Your task to perform on an android device: toggle notifications settings in the gmail app Image 0: 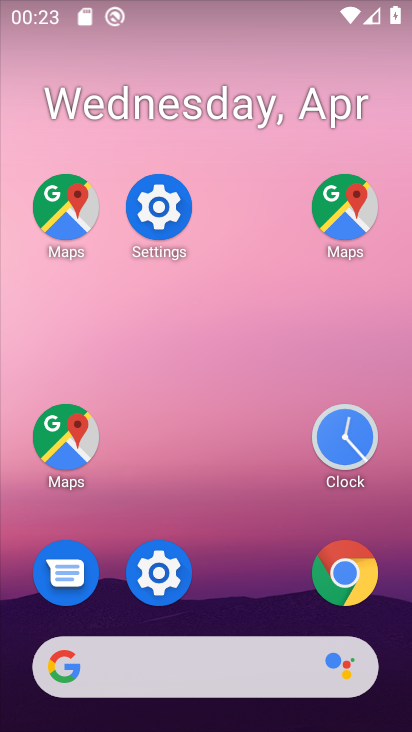
Step 0: drag from (236, 481) to (121, 74)
Your task to perform on an android device: toggle notifications settings in the gmail app Image 1: 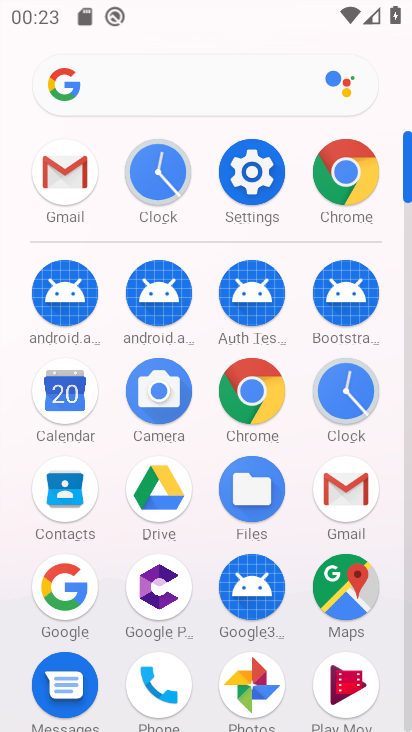
Step 1: click (332, 486)
Your task to perform on an android device: toggle notifications settings in the gmail app Image 2: 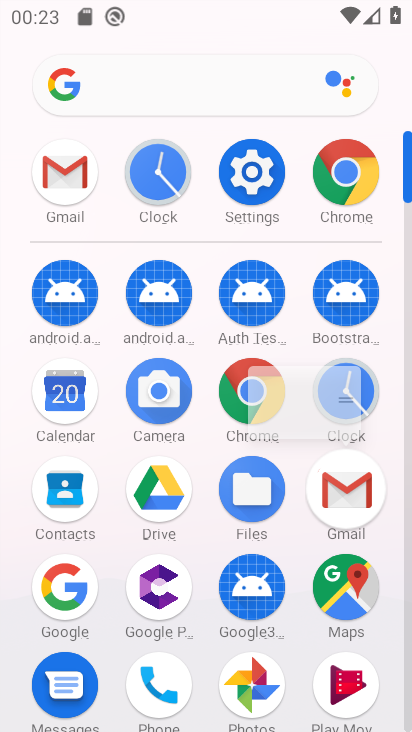
Step 2: click (332, 486)
Your task to perform on an android device: toggle notifications settings in the gmail app Image 3: 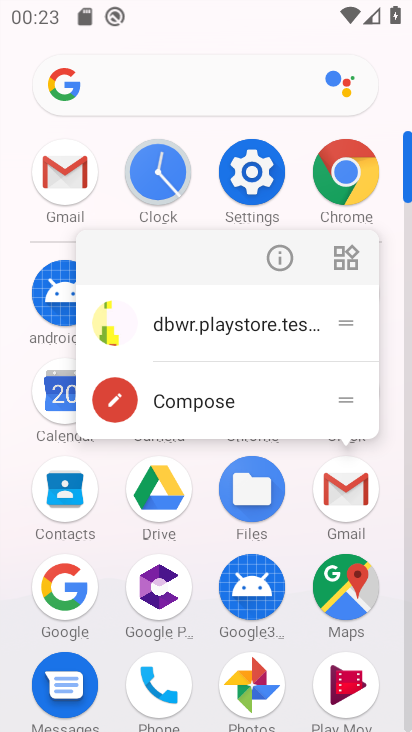
Step 3: click (332, 486)
Your task to perform on an android device: toggle notifications settings in the gmail app Image 4: 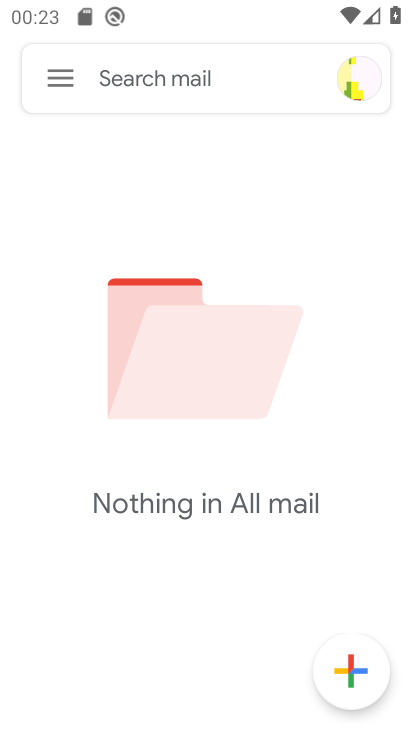
Step 4: click (60, 80)
Your task to perform on an android device: toggle notifications settings in the gmail app Image 5: 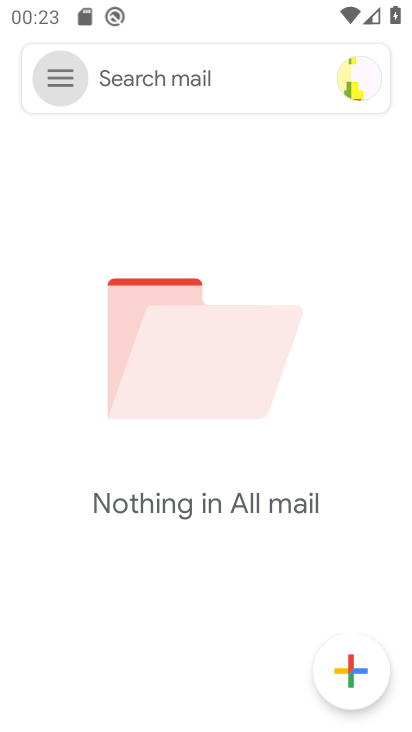
Step 5: click (60, 80)
Your task to perform on an android device: toggle notifications settings in the gmail app Image 6: 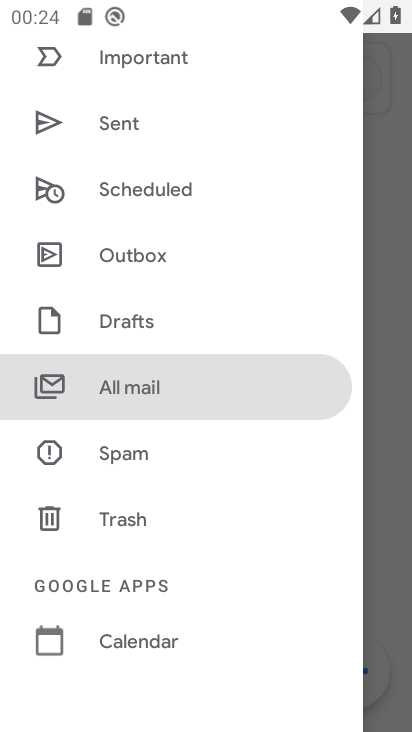
Step 6: drag from (217, 167) to (209, 537)
Your task to perform on an android device: toggle notifications settings in the gmail app Image 7: 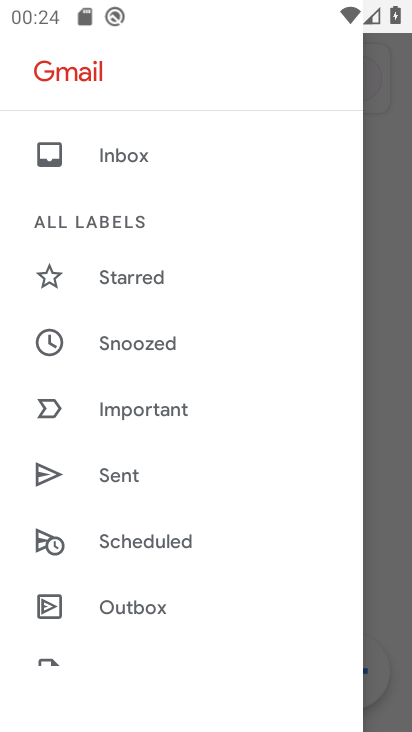
Step 7: drag from (178, 501) to (57, 141)
Your task to perform on an android device: toggle notifications settings in the gmail app Image 8: 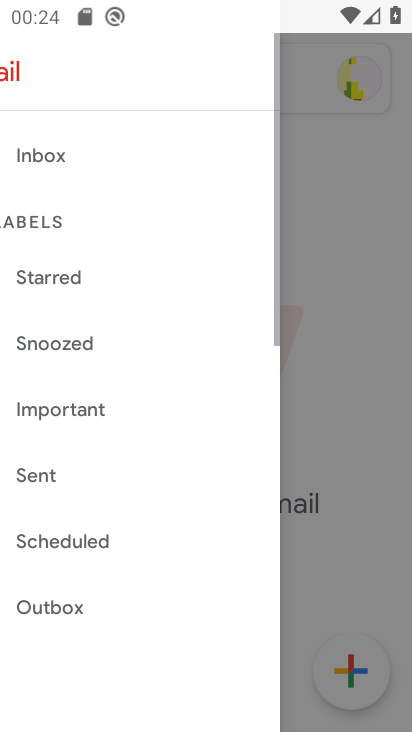
Step 8: drag from (140, 467) to (135, 146)
Your task to perform on an android device: toggle notifications settings in the gmail app Image 9: 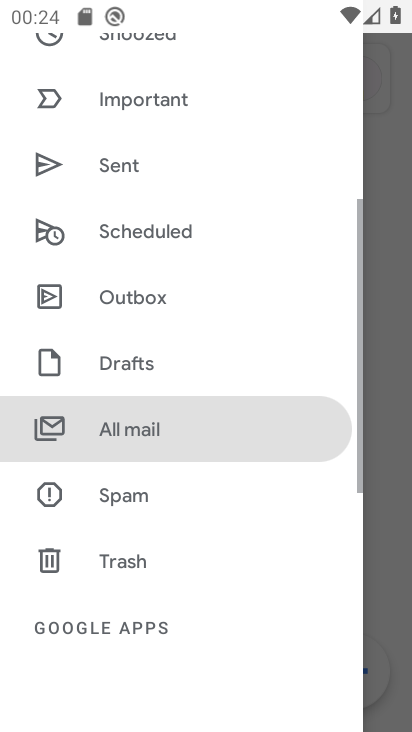
Step 9: drag from (88, 548) to (69, 224)
Your task to perform on an android device: toggle notifications settings in the gmail app Image 10: 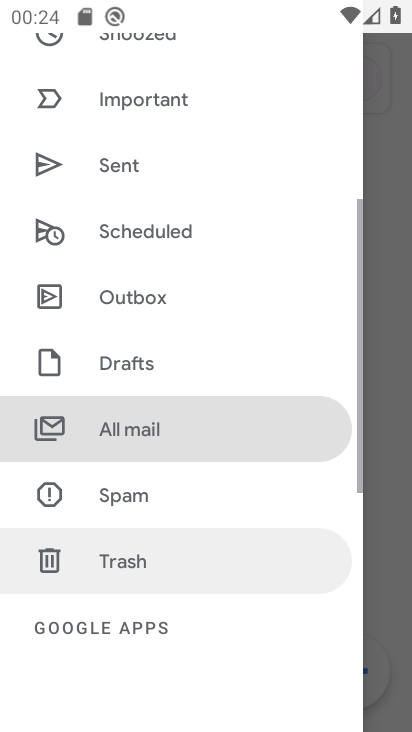
Step 10: drag from (117, 536) to (112, 302)
Your task to perform on an android device: toggle notifications settings in the gmail app Image 11: 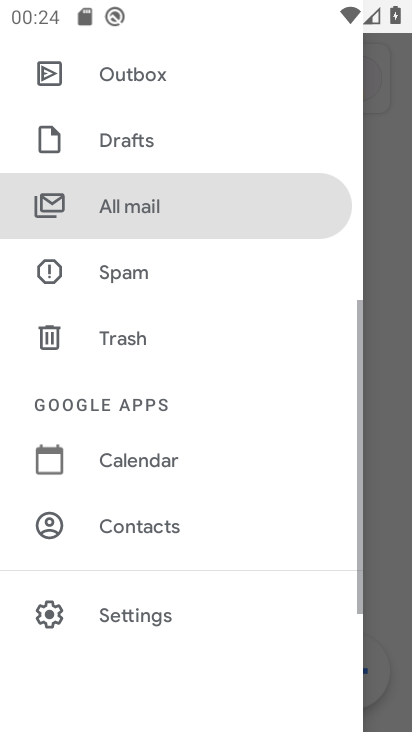
Step 11: drag from (176, 478) to (155, 158)
Your task to perform on an android device: toggle notifications settings in the gmail app Image 12: 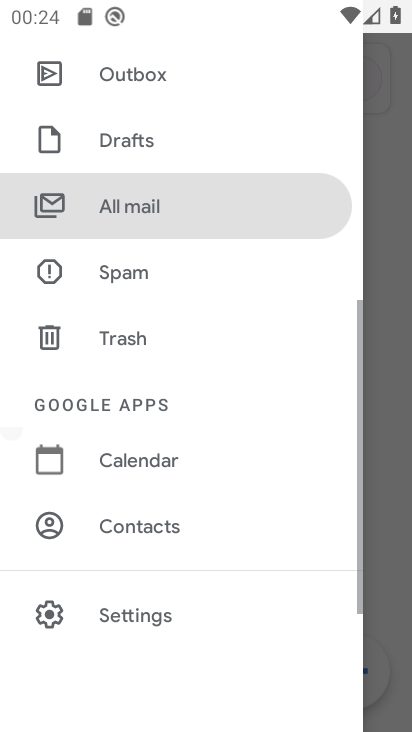
Step 12: drag from (173, 483) to (195, 113)
Your task to perform on an android device: toggle notifications settings in the gmail app Image 13: 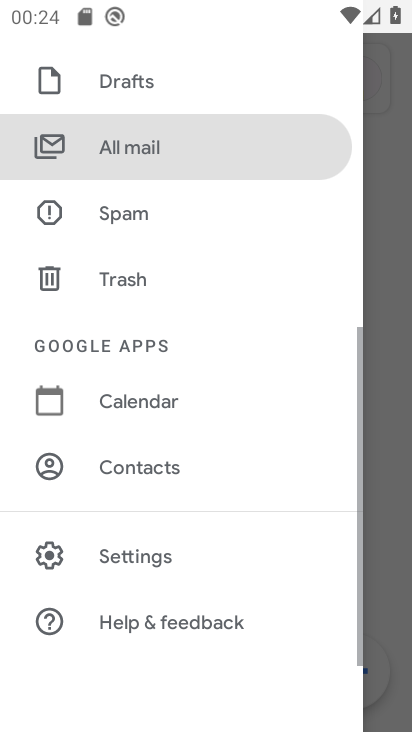
Step 13: click (128, 616)
Your task to perform on an android device: toggle notifications settings in the gmail app Image 14: 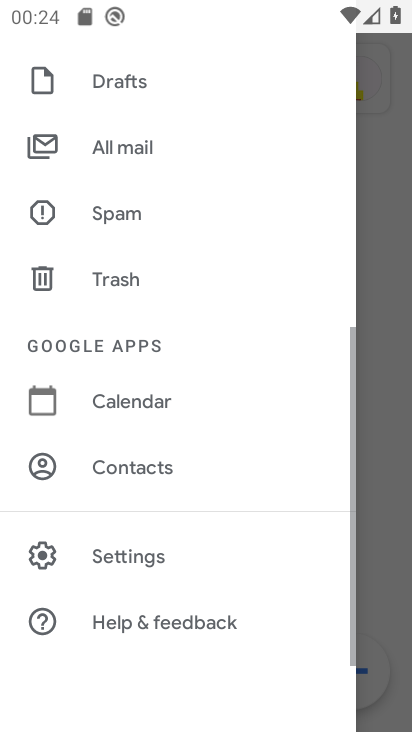
Step 14: click (115, 553)
Your task to perform on an android device: toggle notifications settings in the gmail app Image 15: 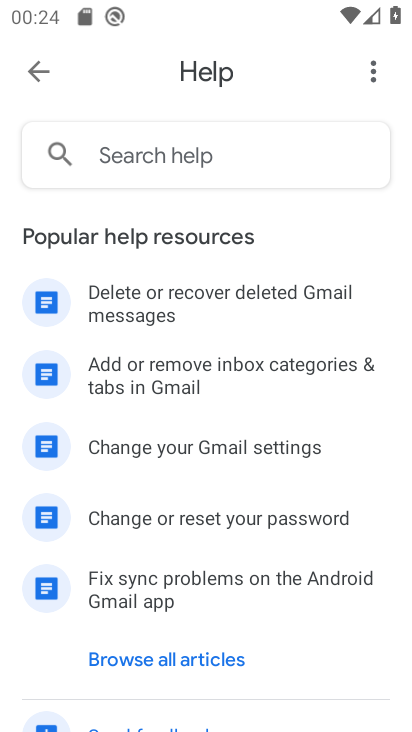
Step 15: click (36, 69)
Your task to perform on an android device: toggle notifications settings in the gmail app Image 16: 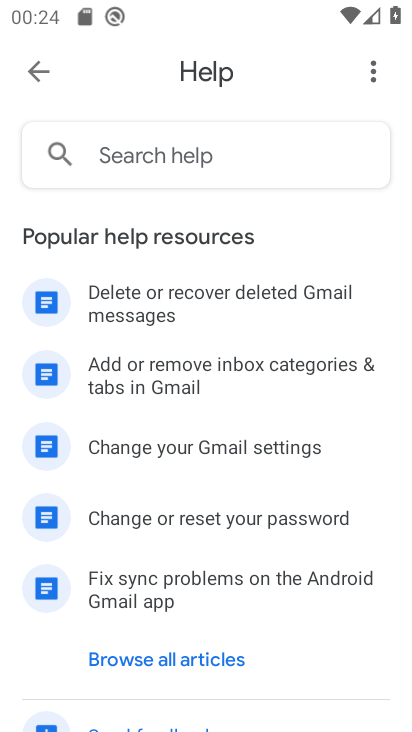
Step 16: click (36, 69)
Your task to perform on an android device: toggle notifications settings in the gmail app Image 17: 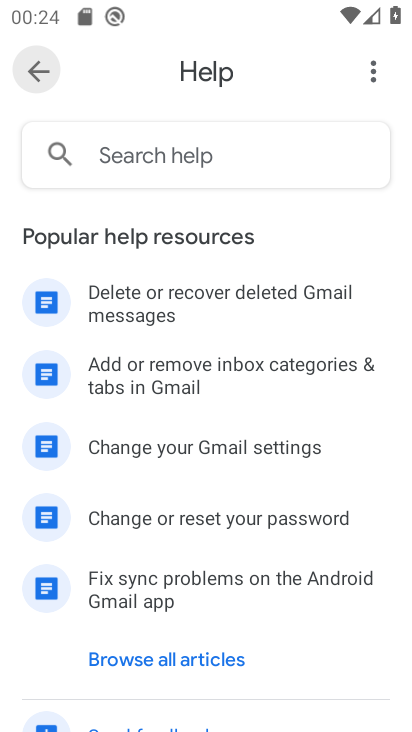
Step 17: click (36, 69)
Your task to perform on an android device: toggle notifications settings in the gmail app Image 18: 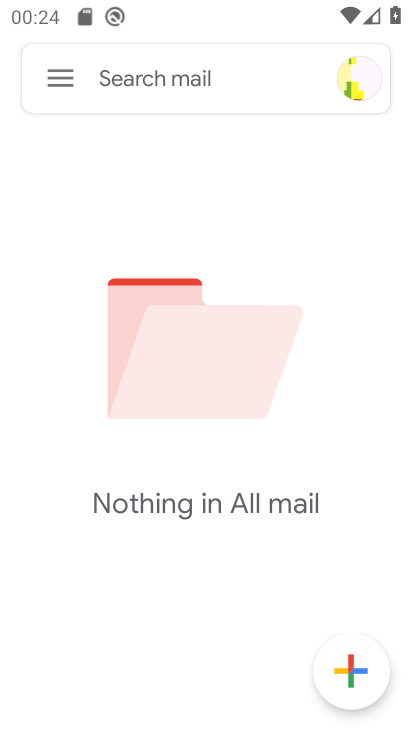
Step 18: click (55, 83)
Your task to perform on an android device: toggle notifications settings in the gmail app Image 19: 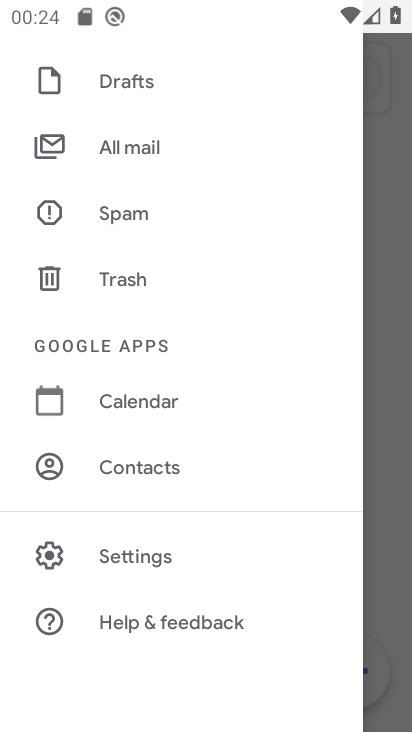
Step 19: click (127, 543)
Your task to perform on an android device: toggle notifications settings in the gmail app Image 20: 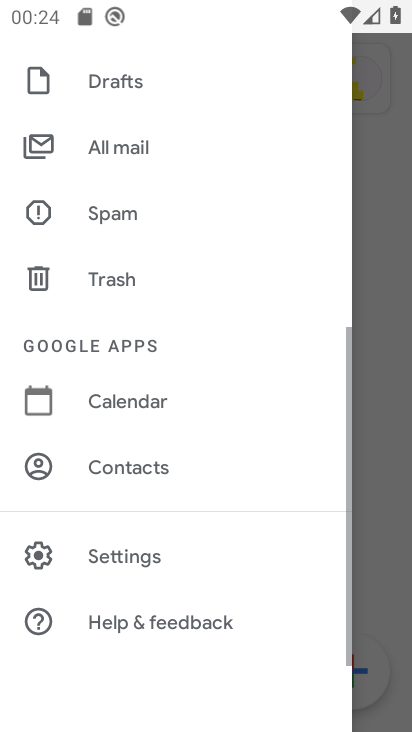
Step 20: click (127, 548)
Your task to perform on an android device: toggle notifications settings in the gmail app Image 21: 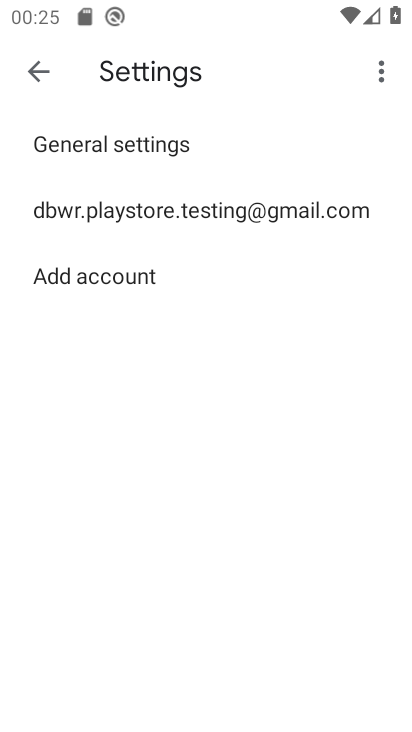
Step 21: click (127, 208)
Your task to perform on an android device: toggle notifications settings in the gmail app Image 22: 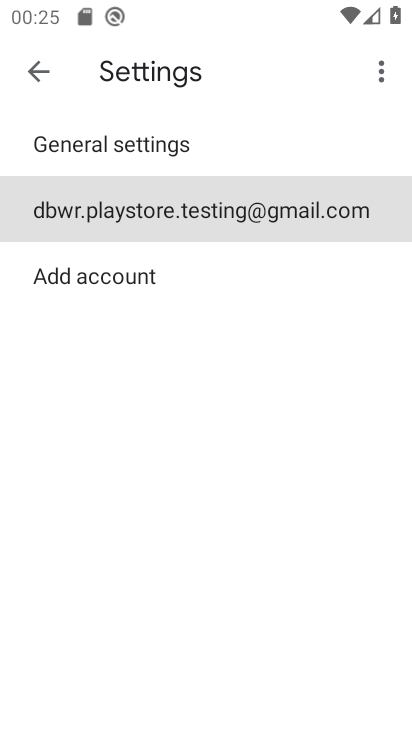
Step 22: click (130, 211)
Your task to perform on an android device: toggle notifications settings in the gmail app Image 23: 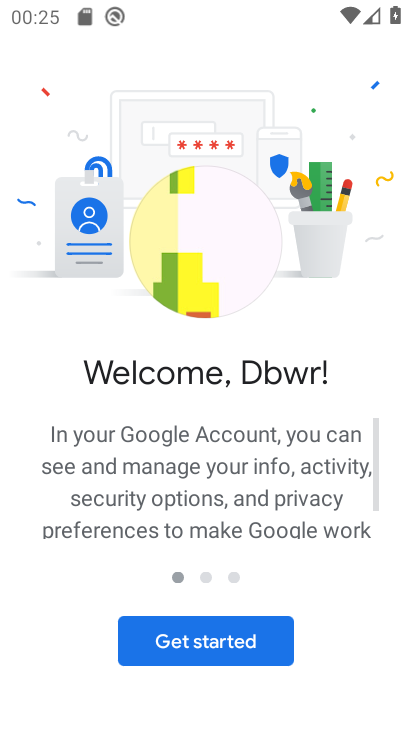
Step 23: click (221, 637)
Your task to perform on an android device: toggle notifications settings in the gmail app Image 24: 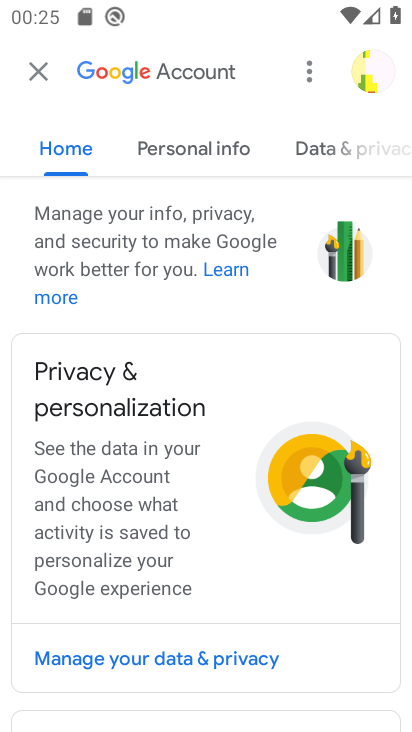
Step 24: click (35, 80)
Your task to perform on an android device: toggle notifications settings in the gmail app Image 25: 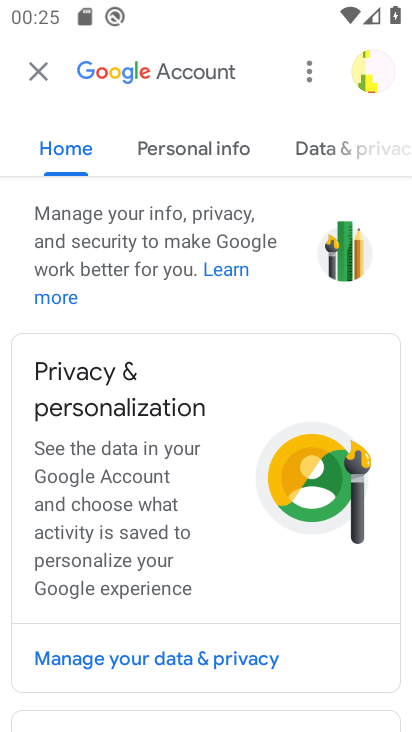
Step 25: click (31, 66)
Your task to perform on an android device: toggle notifications settings in the gmail app Image 26: 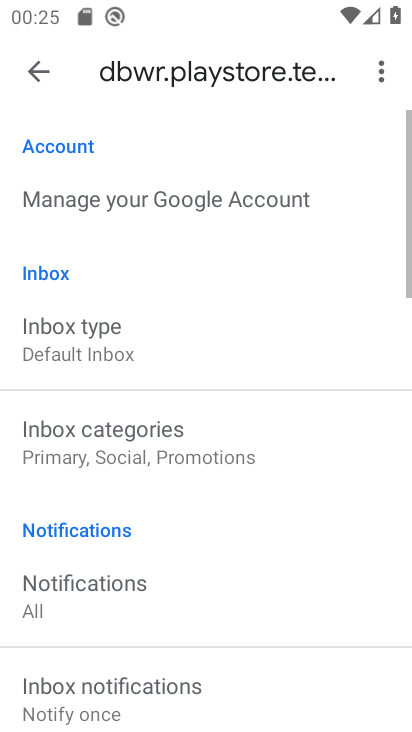
Step 26: click (31, 66)
Your task to perform on an android device: toggle notifications settings in the gmail app Image 27: 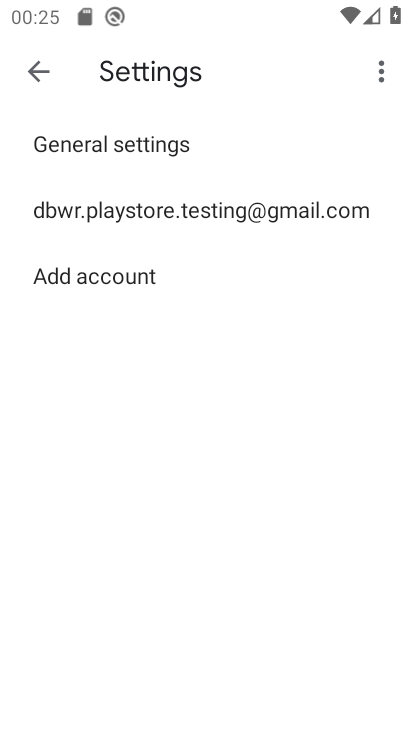
Step 27: click (28, 76)
Your task to perform on an android device: toggle notifications settings in the gmail app Image 28: 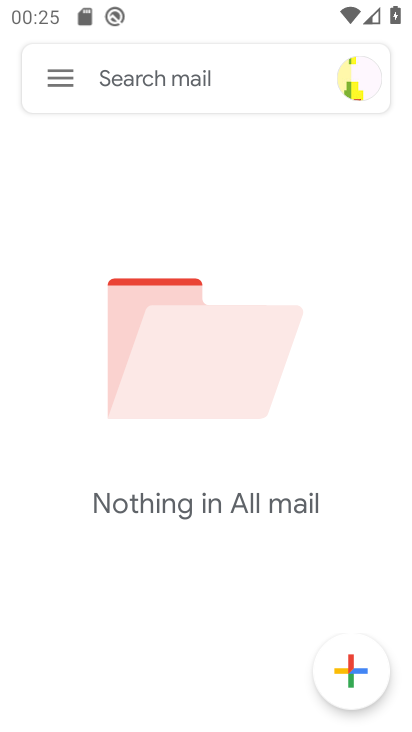
Step 28: click (62, 81)
Your task to perform on an android device: toggle notifications settings in the gmail app Image 29: 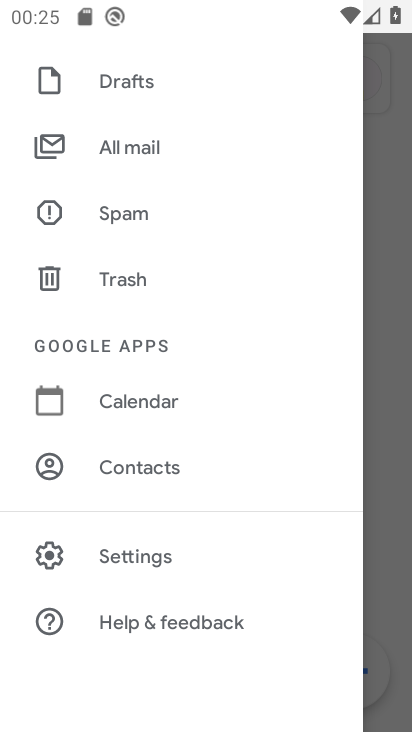
Step 29: click (124, 554)
Your task to perform on an android device: toggle notifications settings in the gmail app Image 30: 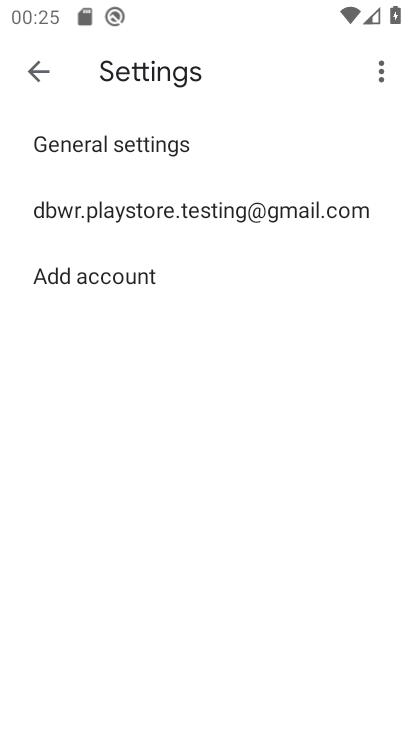
Step 30: click (107, 215)
Your task to perform on an android device: toggle notifications settings in the gmail app Image 31: 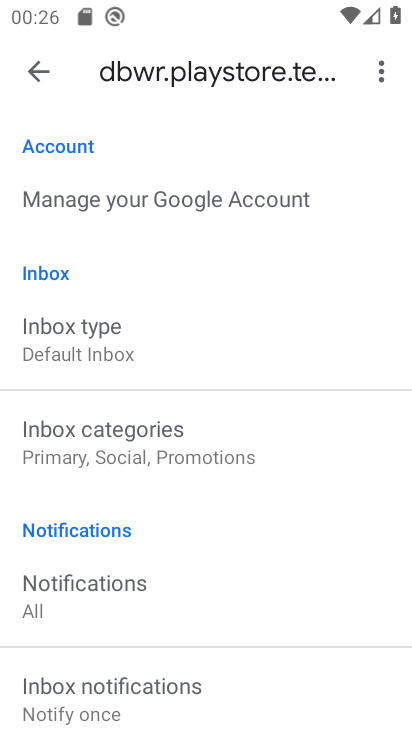
Step 31: click (62, 582)
Your task to perform on an android device: toggle notifications settings in the gmail app Image 32: 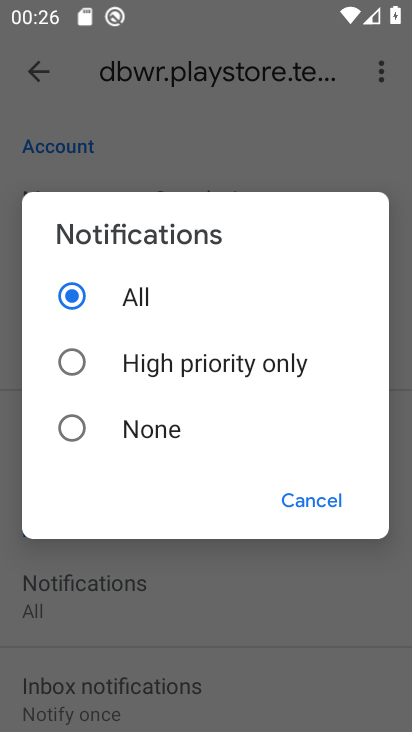
Step 32: click (68, 427)
Your task to perform on an android device: toggle notifications settings in the gmail app Image 33: 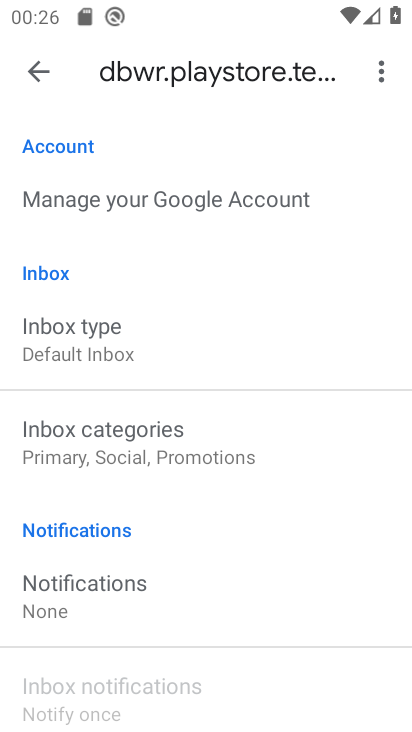
Step 33: task complete